Your task to perform on an android device: Open ESPN.com Image 0: 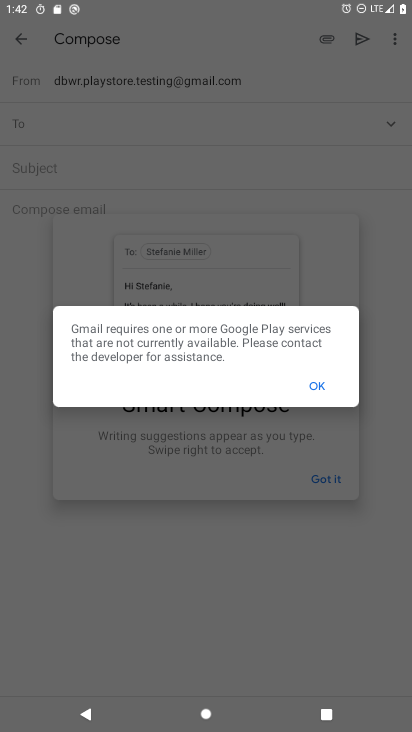
Step 0: press home button
Your task to perform on an android device: Open ESPN.com Image 1: 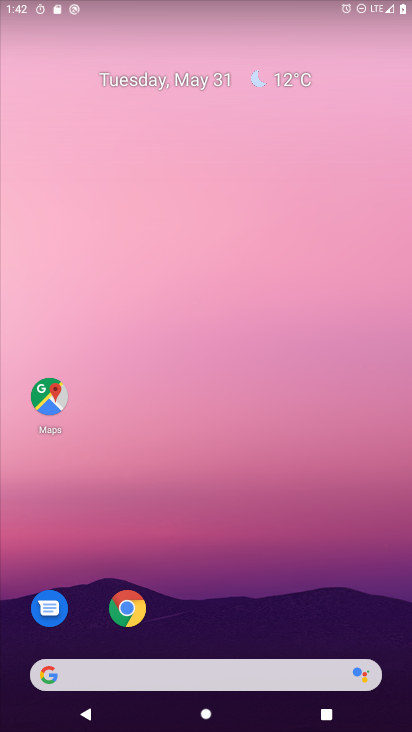
Step 1: click (125, 609)
Your task to perform on an android device: Open ESPN.com Image 2: 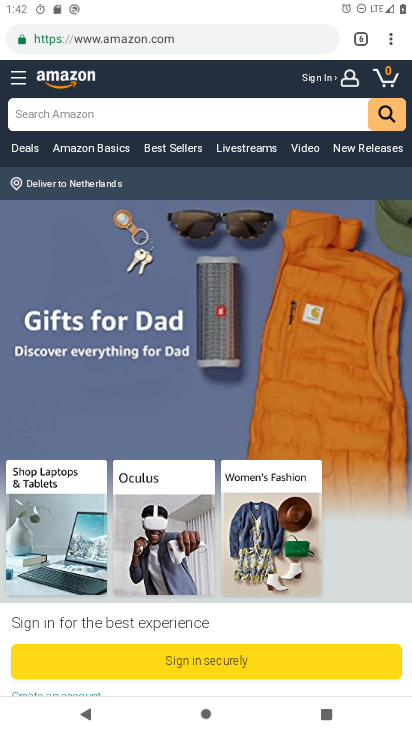
Step 2: click (89, 41)
Your task to perform on an android device: Open ESPN.com Image 3: 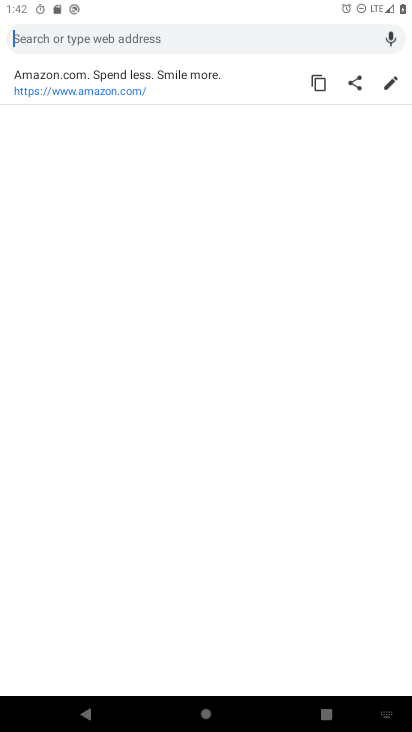
Step 3: type "espn.com"
Your task to perform on an android device: Open ESPN.com Image 4: 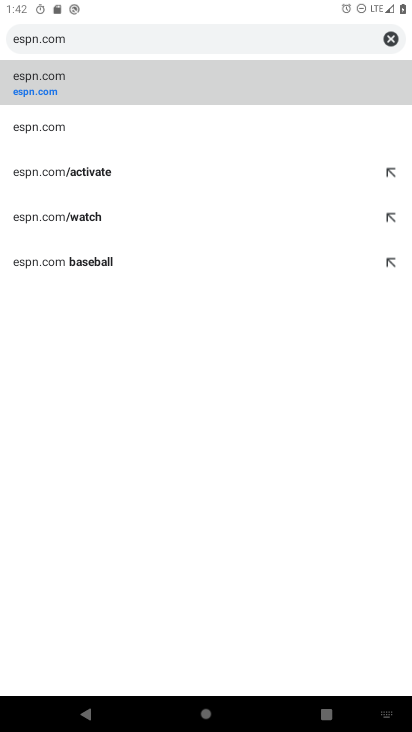
Step 4: click (34, 86)
Your task to perform on an android device: Open ESPN.com Image 5: 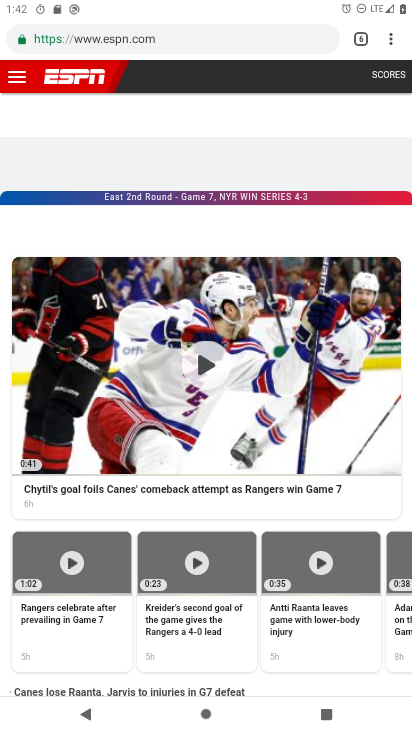
Step 5: task complete